Your task to perform on an android device: open chrome privacy settings Image 0: 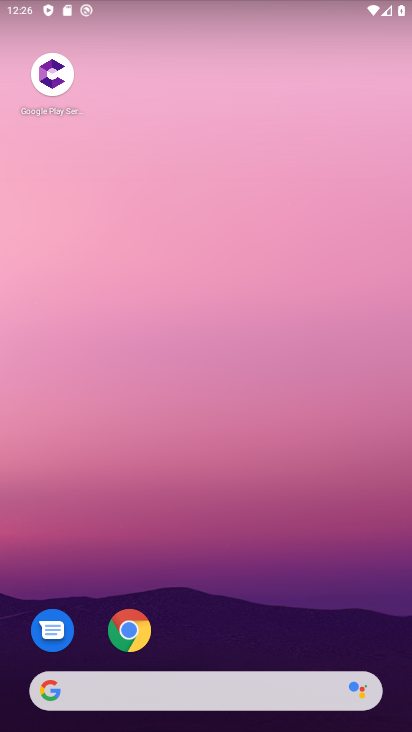
Step 0: drag from (230, 239) to (293, 5)
Your task to perform on an android device: open chrome privacy settings Image 1: 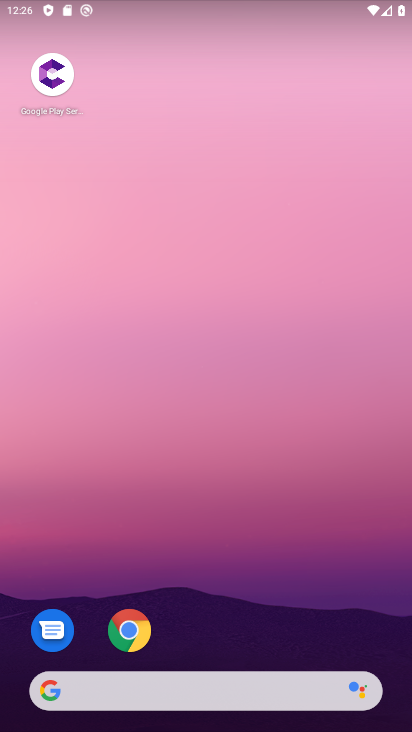
Step 1: drag from (178, 647) to (192, 425)
Your task to perform on an android device: open chrome privacy settings Image 2: 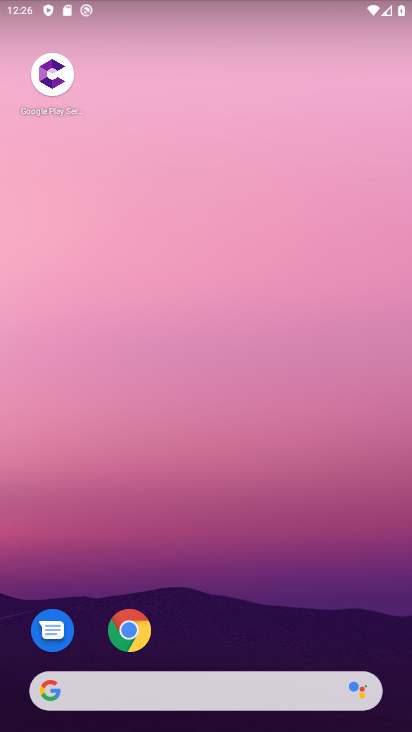
Step 2: click (132, 611)
Your task to perform on an android device: open chrome privacy settings Image 3: 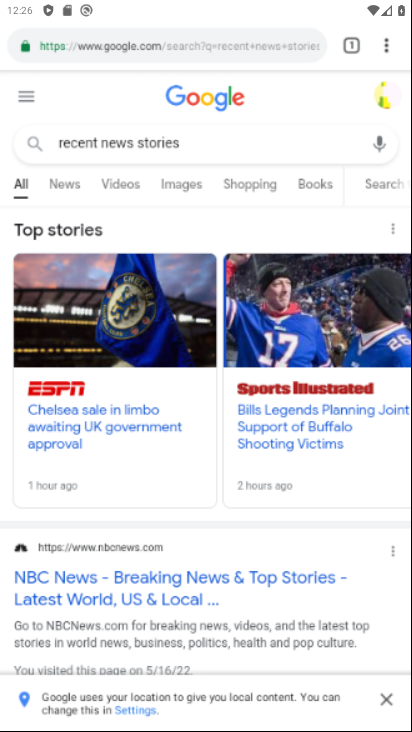
Step 3: click (132, 606)
Your task to perform on an android device: open chrome privacy settings Image 4: 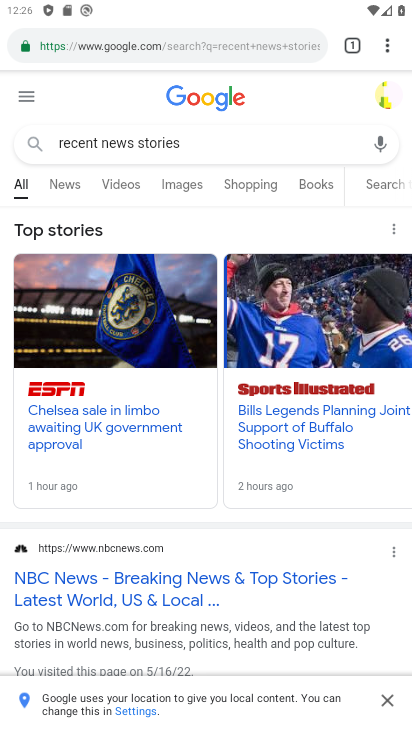
Step 4: click (399, 46)
Your task to perform on an android device: open chrome privacy settings Image 5: 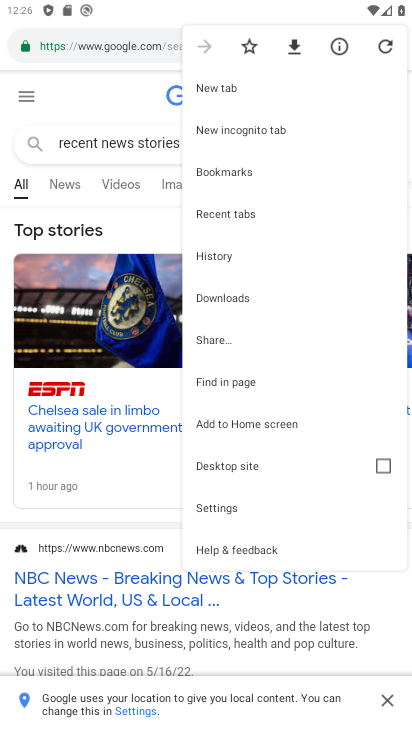
Step 5: click (236, 505)
Your task to perform on an android device: open chrome privacy settings Image 6: 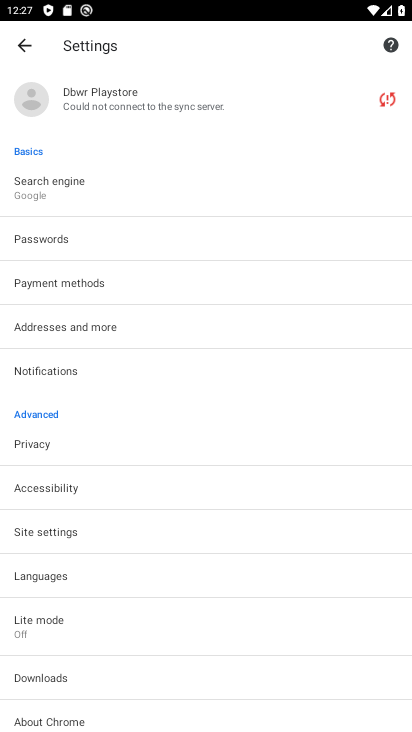
Step 6: click (54, 437)
Your task to perform on an android device: open chrome privacy settings Image 7: 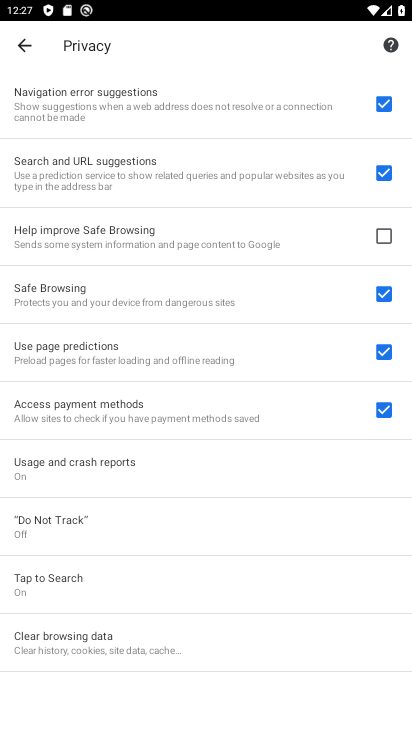
Step 7: task complete